Your task to perform on an android device: turn vacation reply on in the gmail app Image 0: 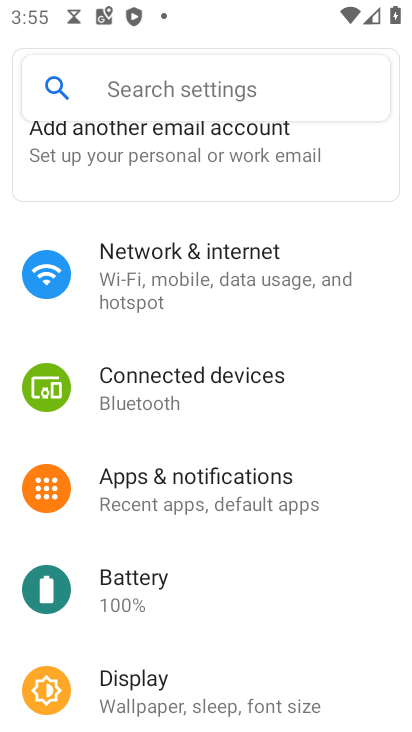
Step 0: press home button
Your task to perform on an android device: turn vacation reply on in the gmail app Image 1: 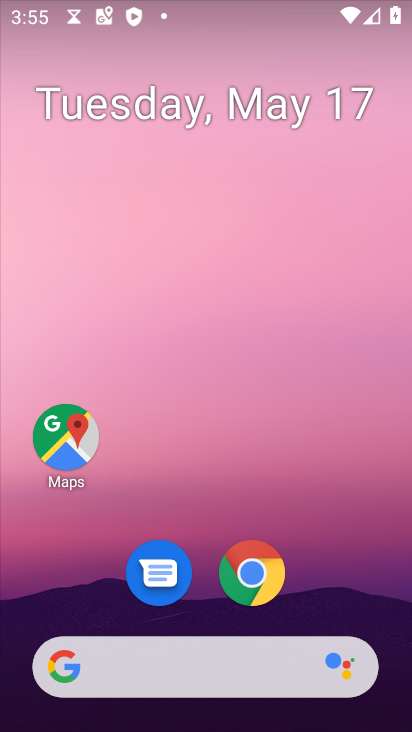
Step 1: drag from (318, 591) to (226, 62)
Your task to perform on an android device: turn vacation reply on in the gmail app Image 2: 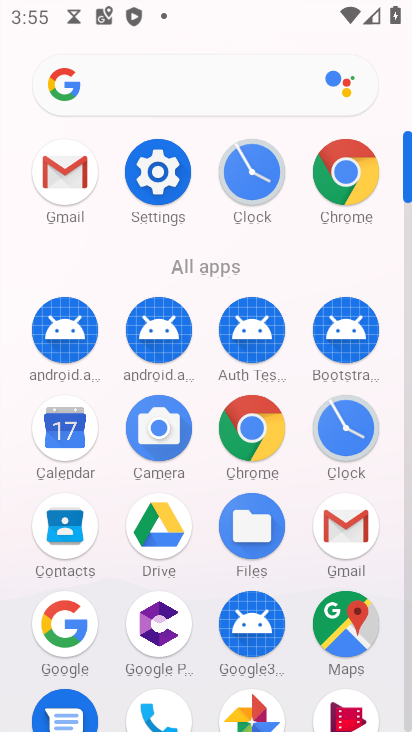
Step 2: click (61, 185)
Your task to perform on an android device: turn vacation reply on in the gmail app Image 3: 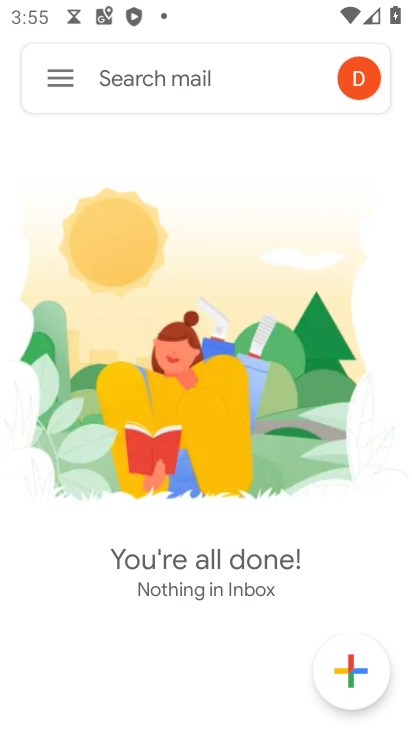
Step 3: click (63, 87)
Your task to perform on an android device: turn vacation reply on in the gmail app Image 4: 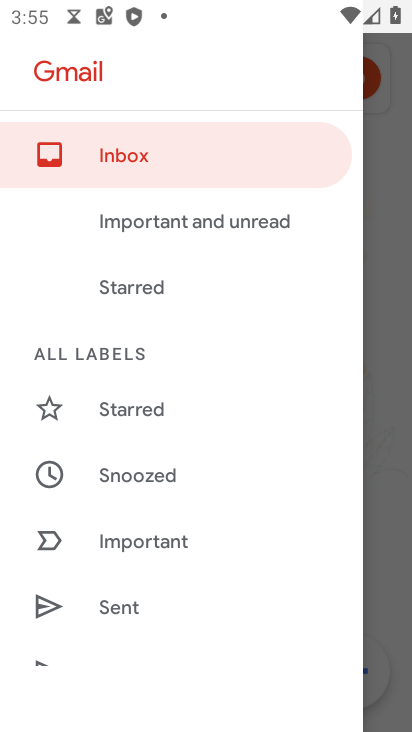
Step 4: drag from (179, 608) to (147, 162)
Your task to perform on an android device: turn vacation reply on in the gmail app Image 5: 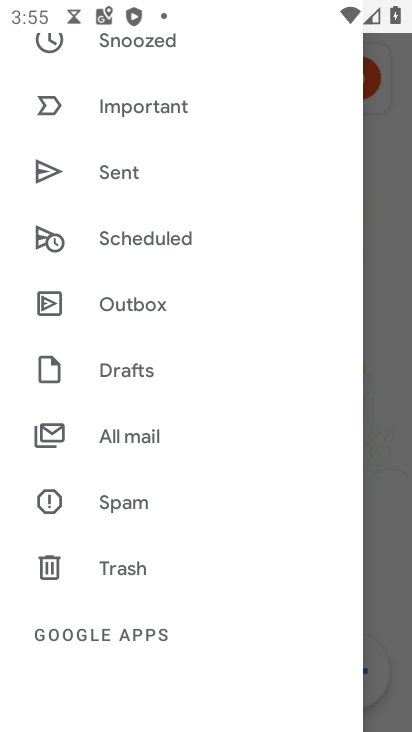
Step 5: drag from (148, 614) to (118, 177)
Your task to perform on an android device: turn vacation reply on in the gmail app Image 6: 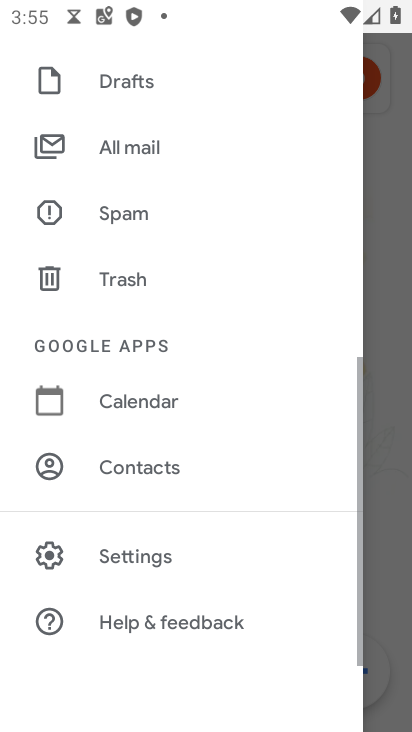
Step 6: click (147, 558)
Your task to perform on an android device: turn vacation reply on in the gmail app Image 7: 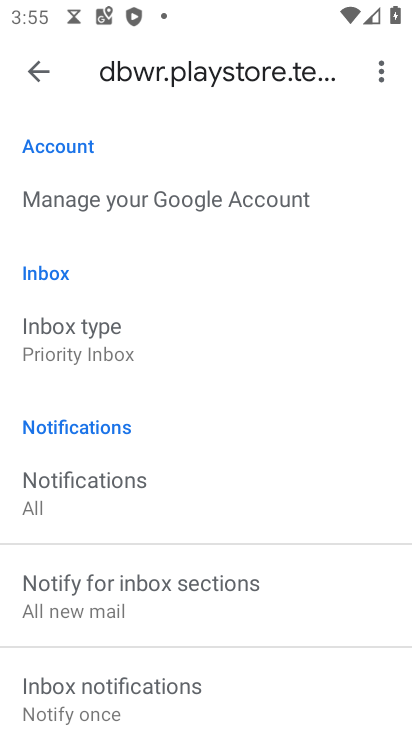
Step 7: drag from (197, 705) to (156, 136)
Your task to perform on an android device: turn vacation reply on in the gmail app Image 8: 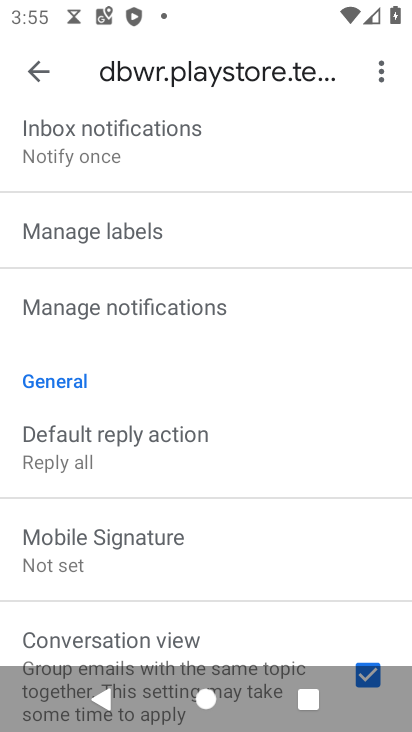
Step 8: drag from (171, 422) to (151, 194)
Your task to perform on an android device: turn vacation reply on in the gmail app Image 9: 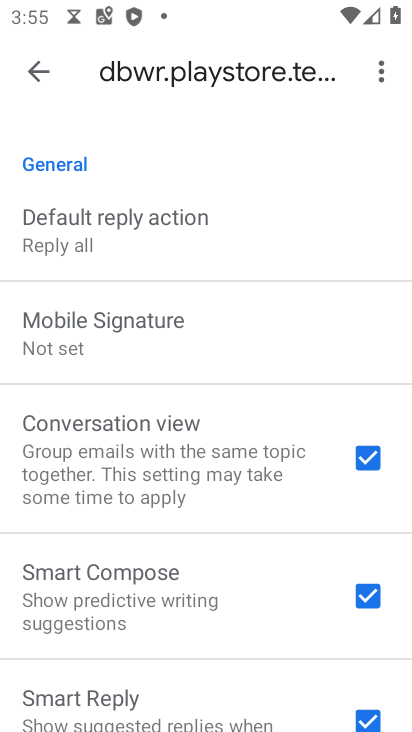
Step 9: drag from (156, 656) to (87, 169)
Your task to perform on an android device: turn vacation reply on in the gmail app Image 10: 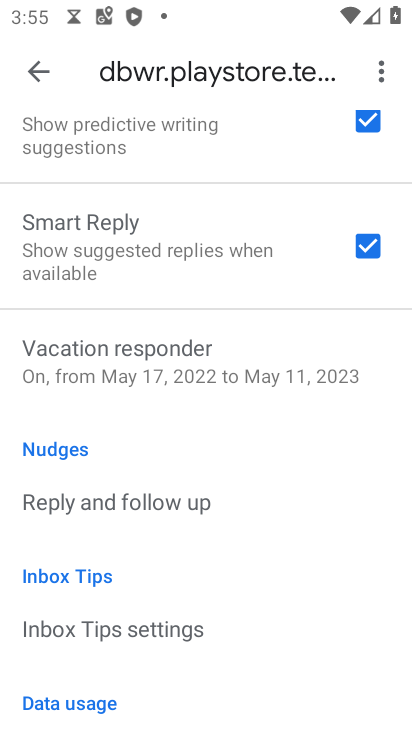
Step 10: click (124, 361)
Your task to perform on an android device: turn vacation reply on in the gmail app Image 11: 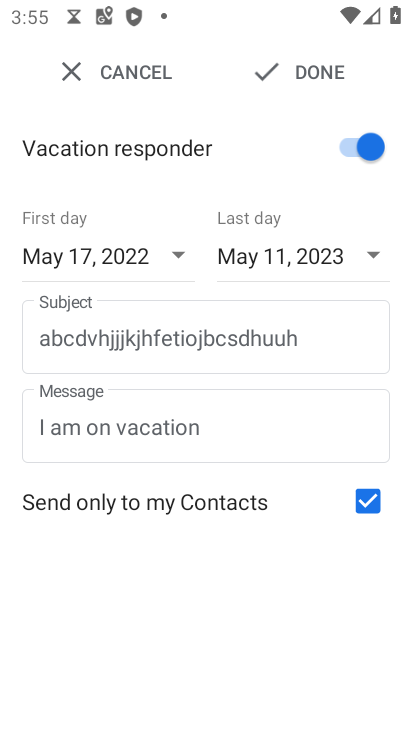
Step 11: click (319, 83)
Your task to perform on an android device: turn vacation reply on in the gmail app Image 12: 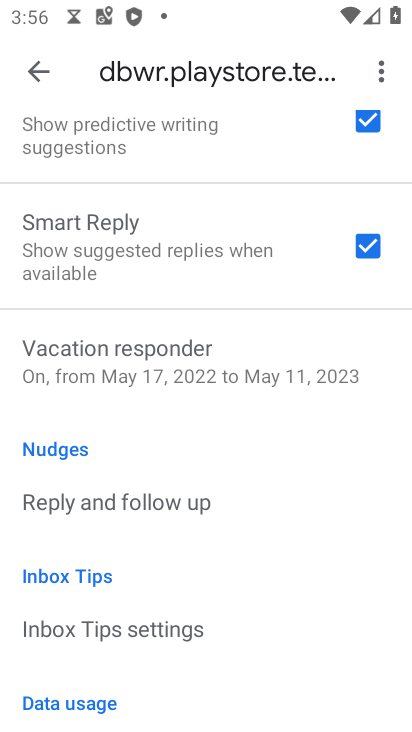
Step 12: task complete